Your task to perform on an android device: Open calendar and show me the third week of next month Image 0: 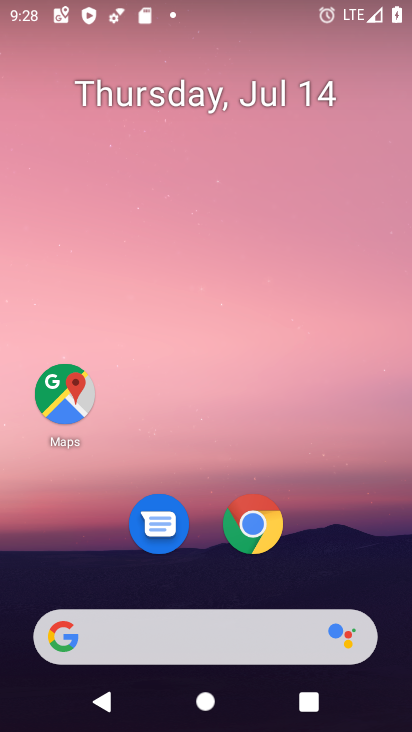
Step 0: drag from (325, 524) to (298, 0)
Your task to perform on an android device: Open calendar and show me the third week of next month Image 1: 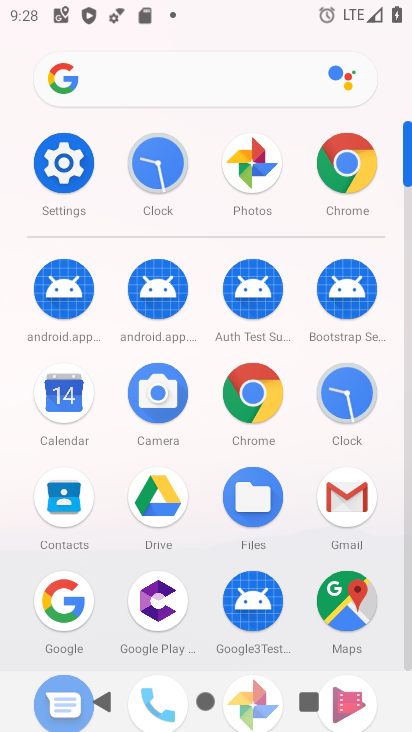
Step 1: click (57, 386)
Your task to perform on an android device: Open calendar and show me the third week of next month Image 2: 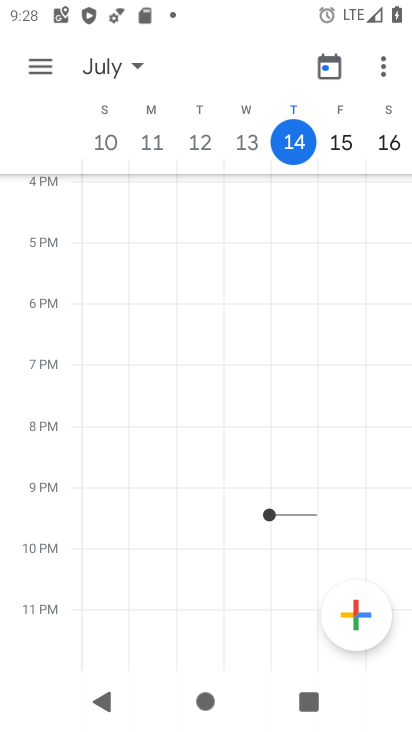
Step 2: task complete